Your task to perform on an android device: check data usage Image 0: 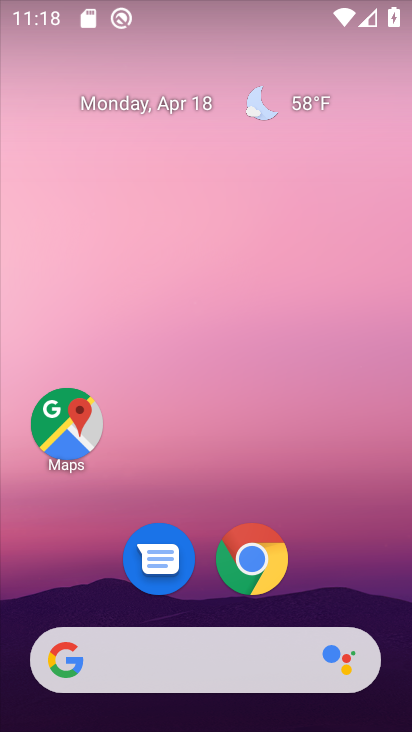
Step 0: drag from (370, 580) to (318, 95)
Your task to perform on an android device: check data usage Image 1: 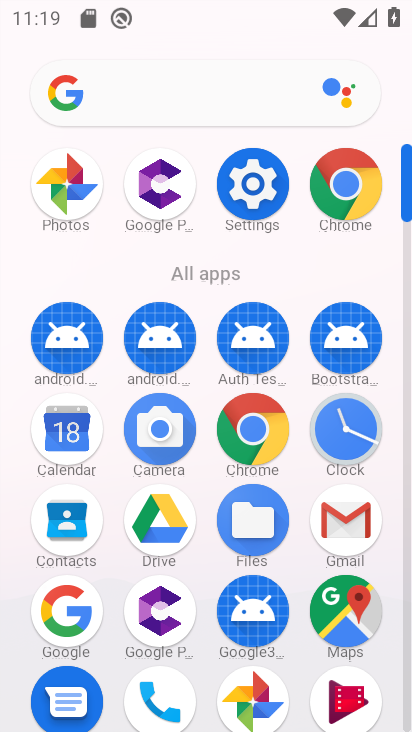
Step 1: click (251, 193)
Your task to perform on an android device: check data usage Image 2: 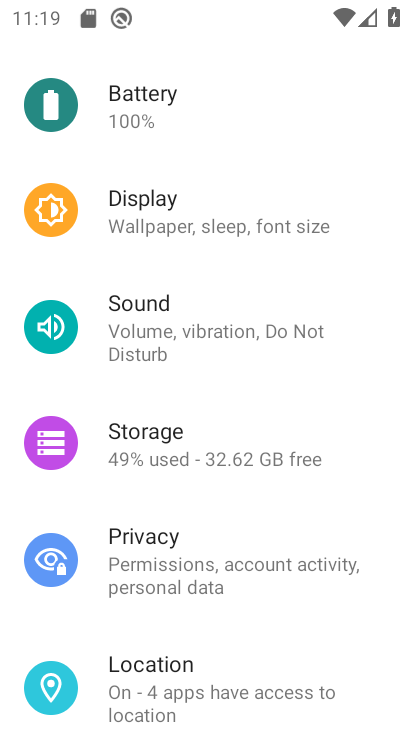
Step 2: drag from (203, 259) to (174, 632)
Your task to perform on an android device: check data usage Image 3: 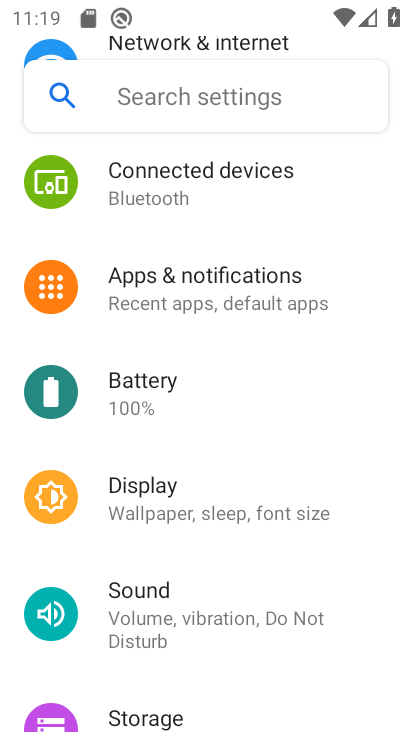
Step 3: drag from (234, 230) to (197, 596)
Your task to perform on an android device: check data usage Image 4: 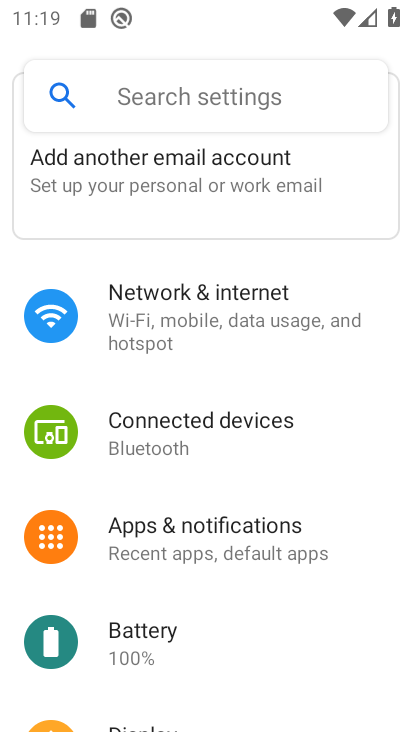
Step 4: click (182, 333)
Your task to perform on an android device: check data usage Image 5: 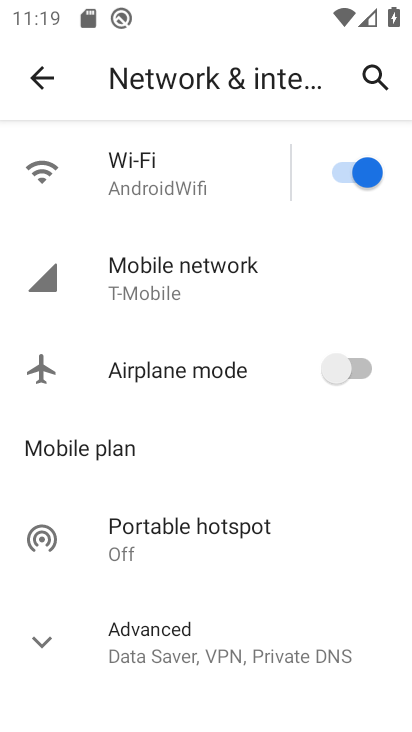
Step 5: click (148, 288)
Your task to perform on an android device: check data usage Image 6: 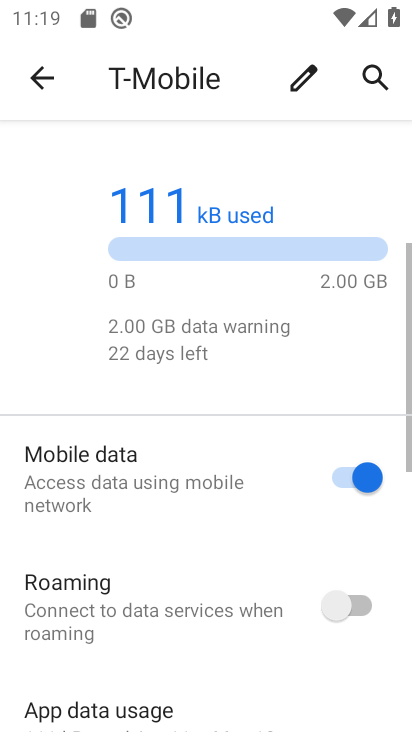
Step 6: task complete